Your task to perform on an android device: turn on priority inbox in the gmail app Image 0: 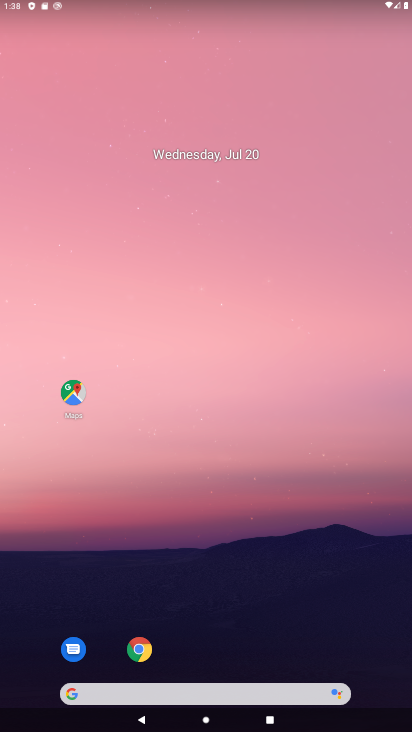
Step 0: drag from (209, 555) to (195, 28)
Your task to perform on an android device: turn on priority inbox in the gmail app Image 1: 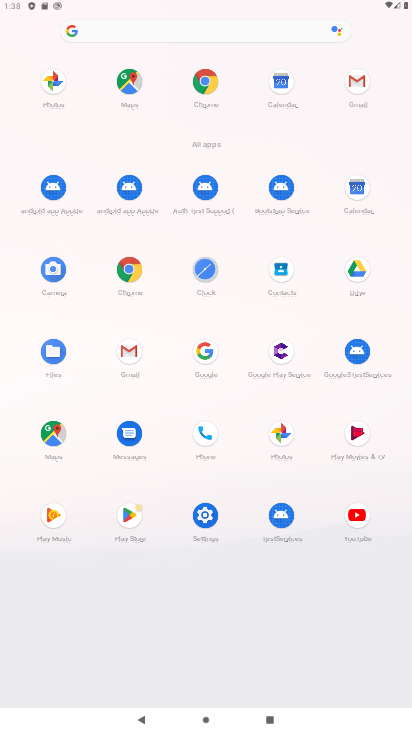
Step 1: click (128, 345)
Your task to perform on an android device: turn on priority inbox in the gmail app Image 2: 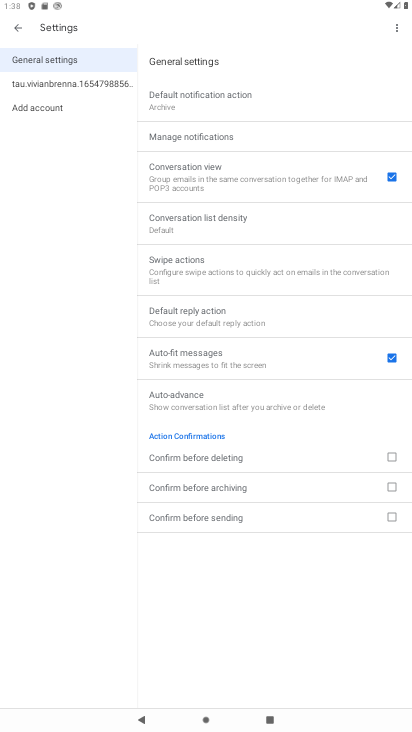
Step 2: task complete